Your task to perform on an android device: What's the weather today? Image 0: 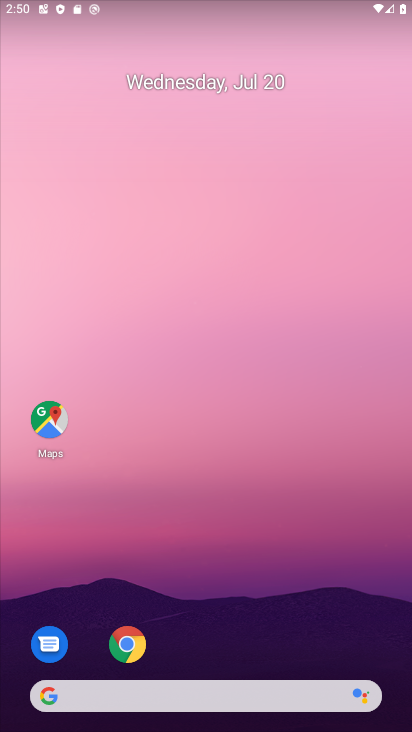
Step 0: drag from (262, 653) to (263, 219)
Your task to perform on an android device: What's the weather today? Image 1: 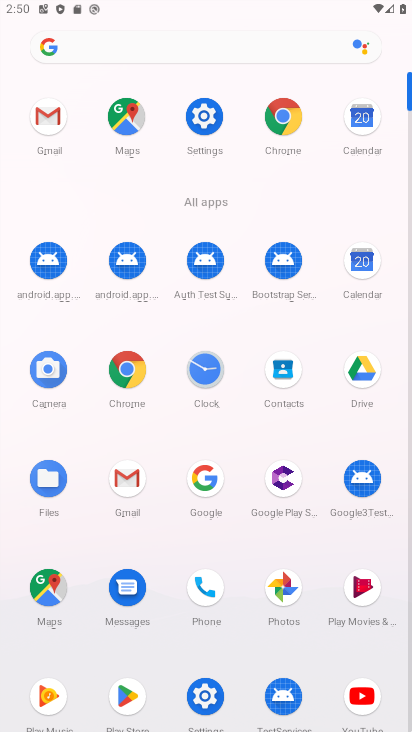
Step 1: click (213, 41)
Your task to perform on an android device: What's the weather today? Image 2: 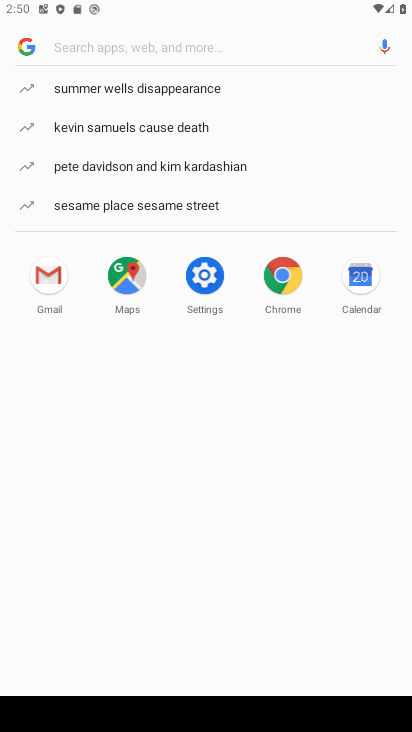
Step 2: type "weather"
Your task to perform on an android device: What's the weather today? Image 3: 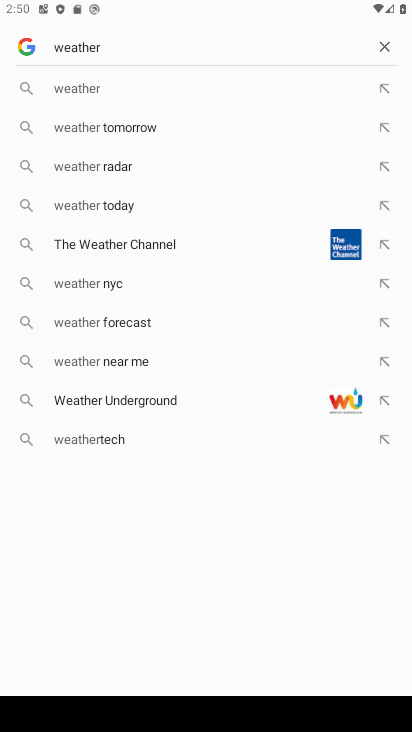
Step 3: click (189, 76)
Your task to perform on an android device: What's the weather today? Image 4: 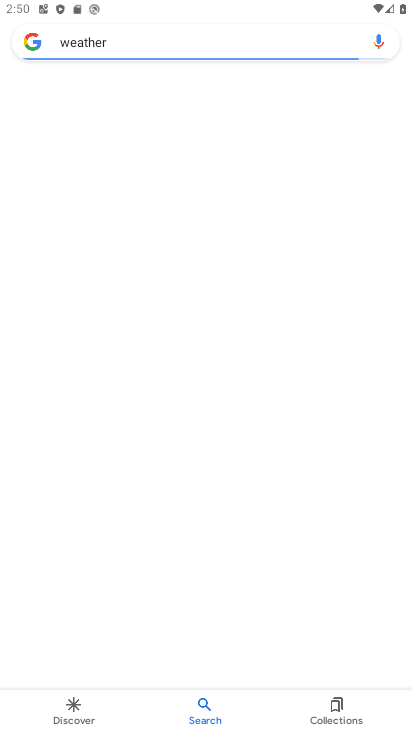
Step 4: task complete